Your task to perform on an android device: turn on javascript in the chrome app Image 0: 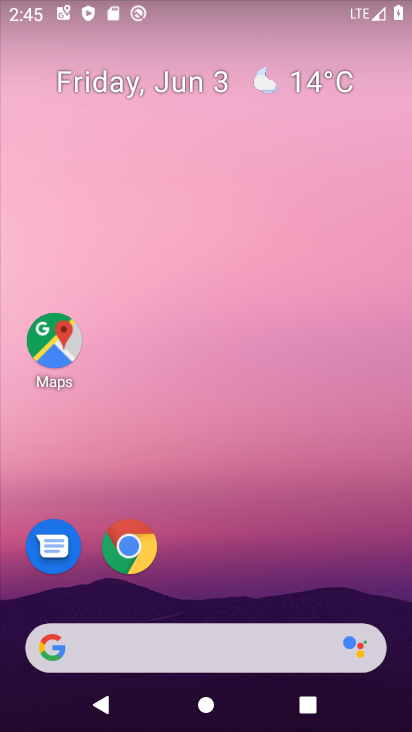
Step 0: drag from (306, 553) to (283, 6)
Your task to perform on an android device: turn on javascript in the chrome app Image 1: 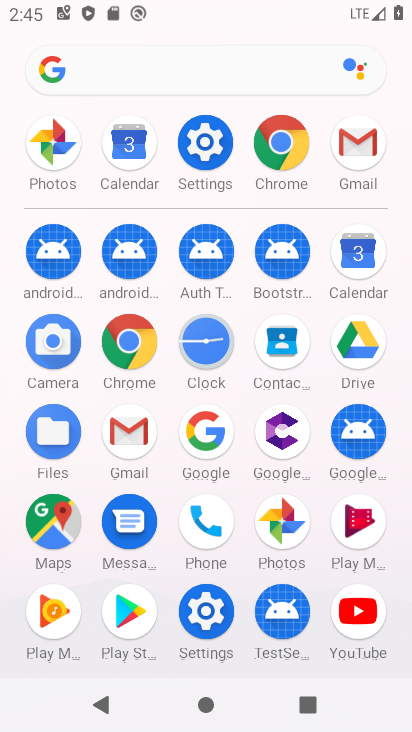
Step 1: click (273, 140)
Your task to perform on an android device: turn on javascript in the chrome app Image 2: 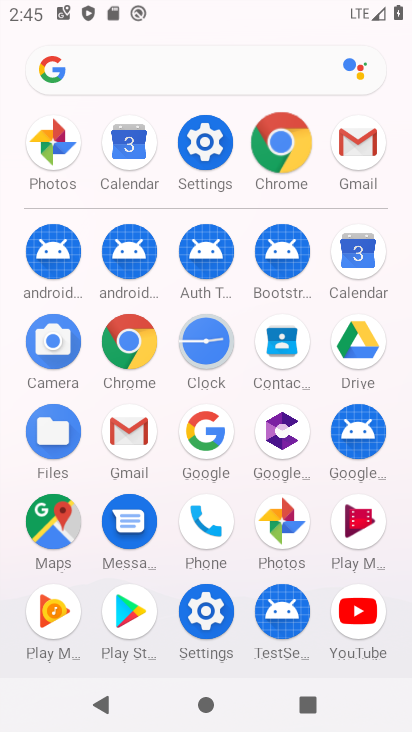
Step 2: click (278, 158)
Your task to perform on an android device: turn on javascript in the chrome app Image 3: 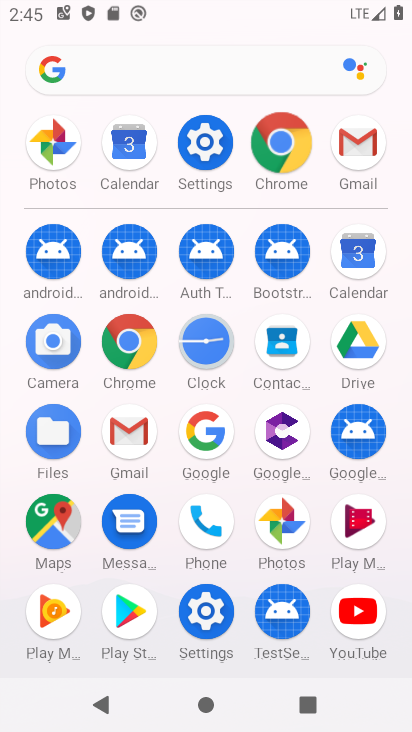
Step 3: click (278, 158)
Your task to perform on an android device: turn on javascript in the chrome app Image 4: 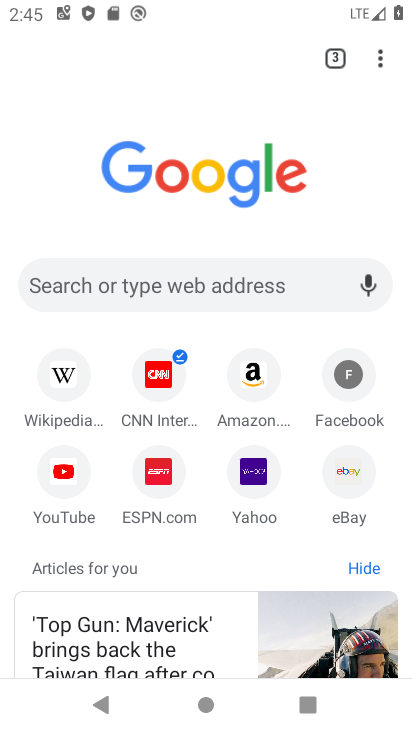
Step 4: drag from (389, 57) to (250, 495)
Your task to perform on an android device: turn on javascript in the chrome app Image 5: 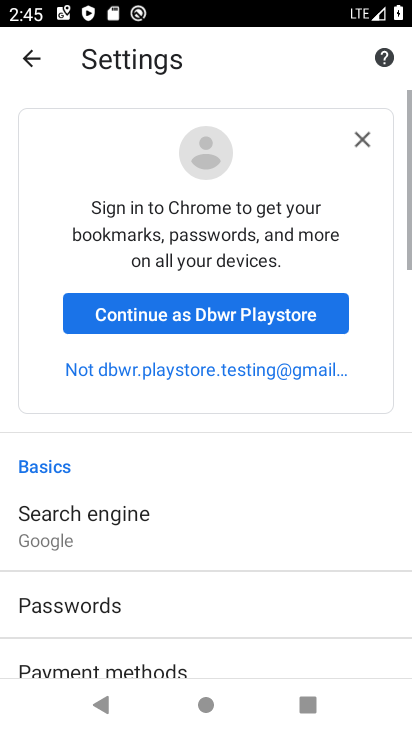
Step 5: drag from (201, 651) to (295, 164)
Your task to perform on an android device: turn on javascript in the chrome app Image 6: 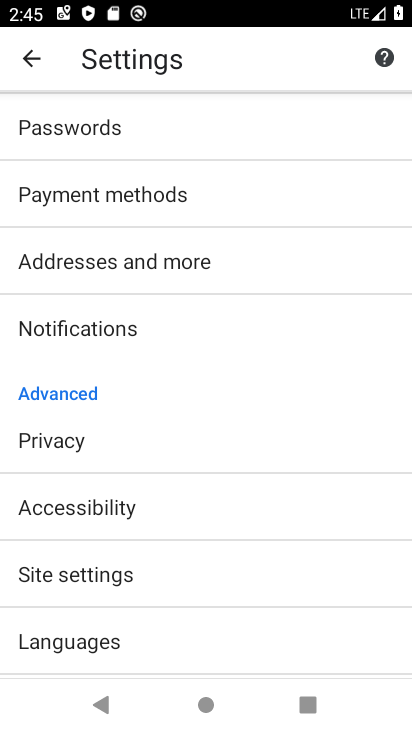
Step 6: click (114, 586)
Your task to perform on an android device: turn on javascript in the chrome app Image 7: 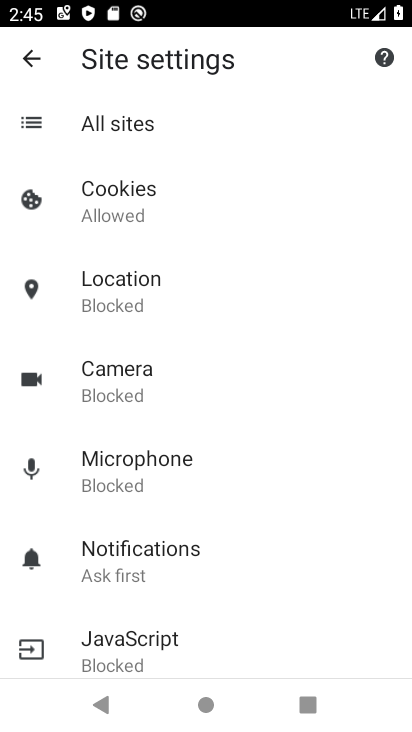
Step 7: drag from (158, 630) to (233, 156)
Your task to perform on an android device: turn on javascript in the chrome app Image 8: 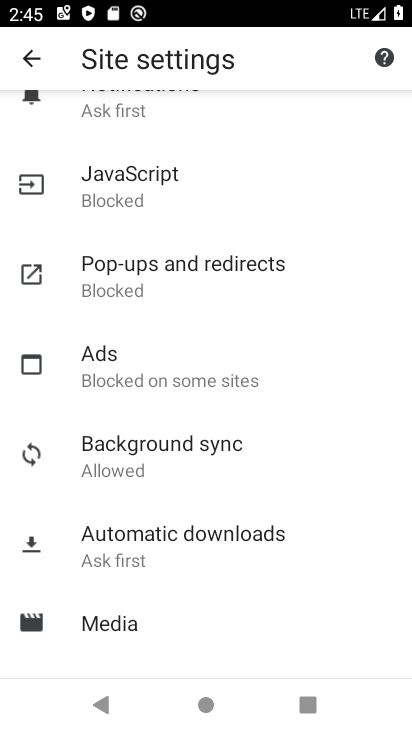
Step 8: click (152, 174)
Your task to perform on an android device: turn on javascript in the chrome app Image 9: 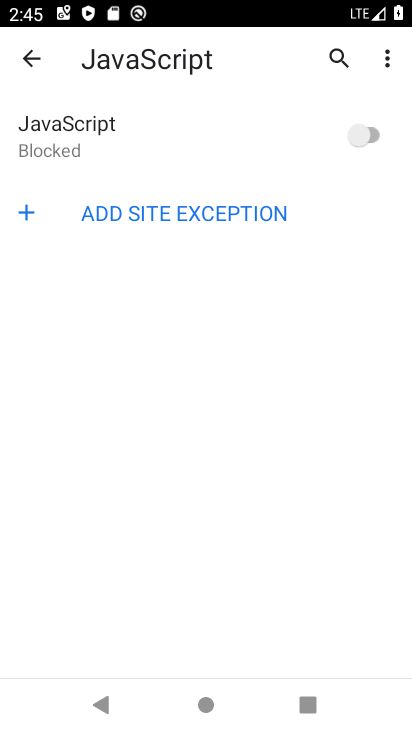
Step 9: click (351, 138)
Your task to perform on an android device: turn on javascript in the chrome app Image 10: 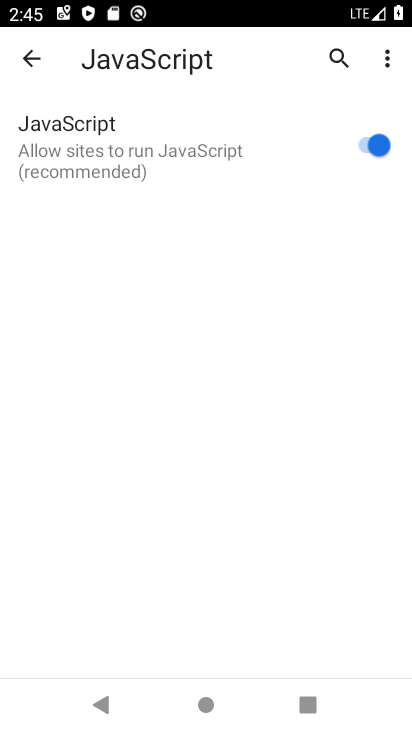
Step 10: task complete